Your task to perform on an android device: Go to display settings Image 0: 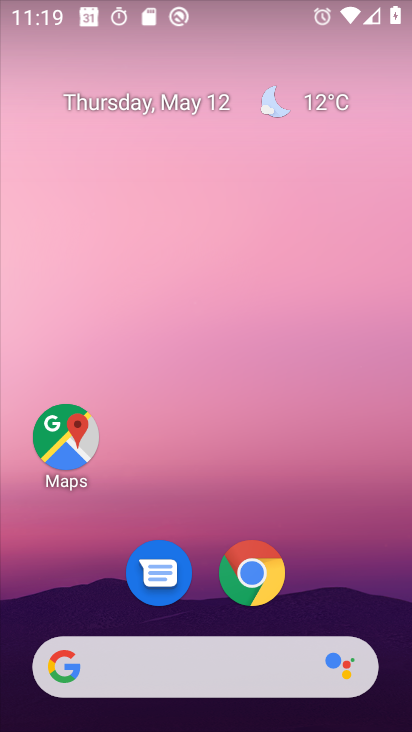
Step 0: click (334, 214)
Your task to perform on an android device: Go to display settings Image 1: 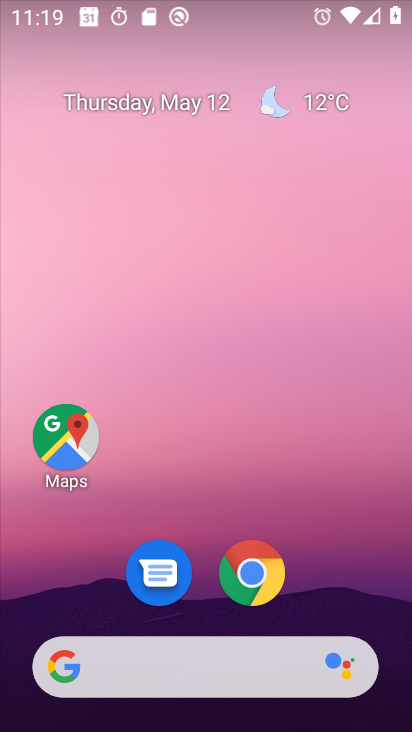
Step 1: drag from (401, 672) to (396, 227)
Your task to perform on an android device: Go to display settings Image 2: 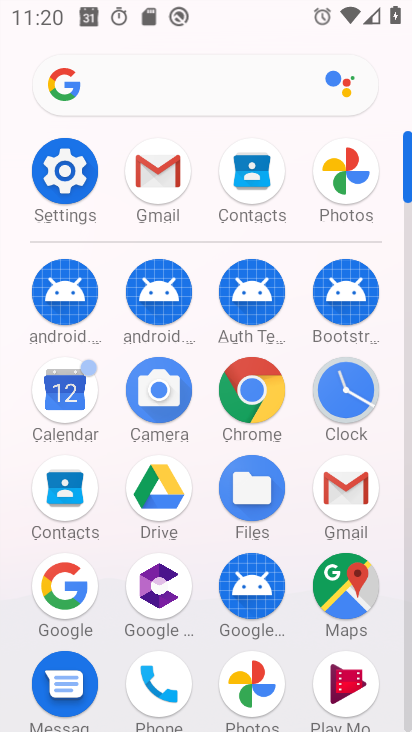
Step 2: click (52, 162)
Your task to perform on an android device: Go to display settings Image 3: 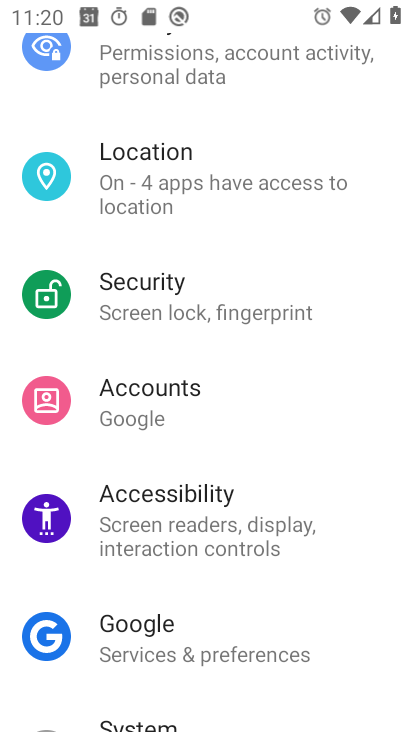
Step 3: drag from (312, 133) to (328, 428)
Your task to perform on an android device: Go to display settings Image 4: 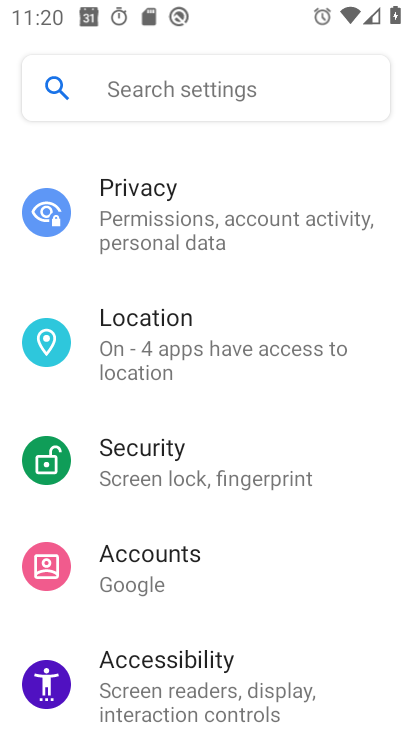
Step 4: drag from (246, 215) to (271, 555)
Your task to perform on an android device: Go to display settings Image 5: 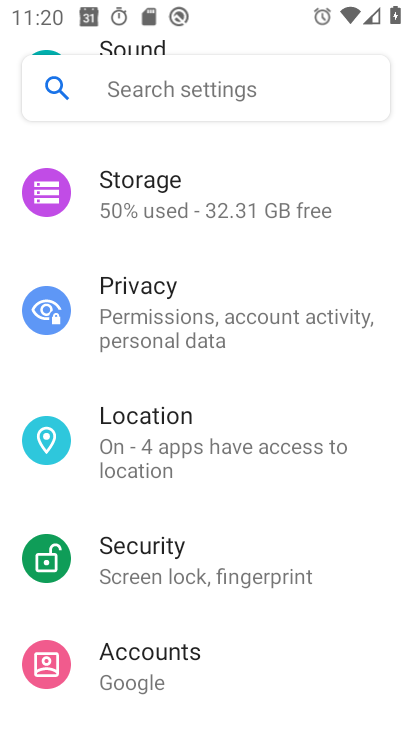
Step 5: drag from (293, 290) to (309, 501)
Your task to perform on an android device: Go to display settings Image 6: 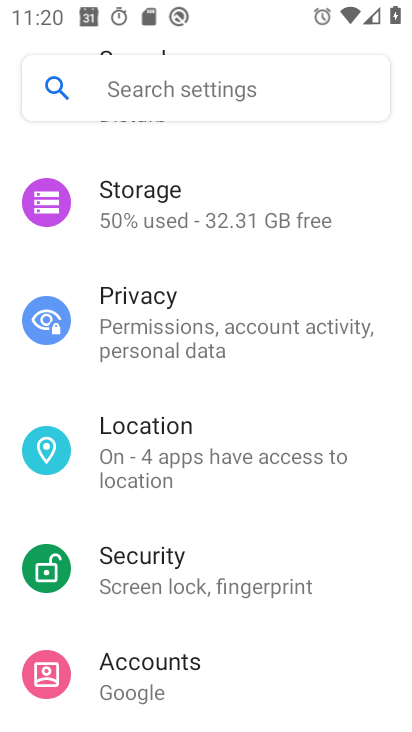
Step 6: drag from (307, 309) to (316, 607)
Your task to perform on an android device: Go to display settings Image 7: 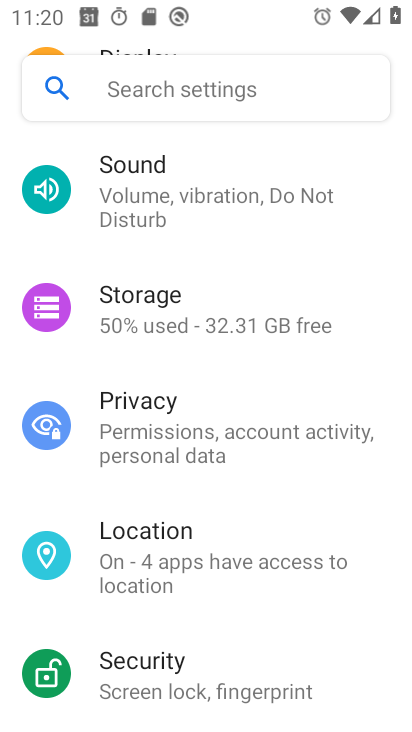
Step 7: drag from (307, 324) to (336, 534)
Your task to perform on an android device: Go to display settings Image 8: 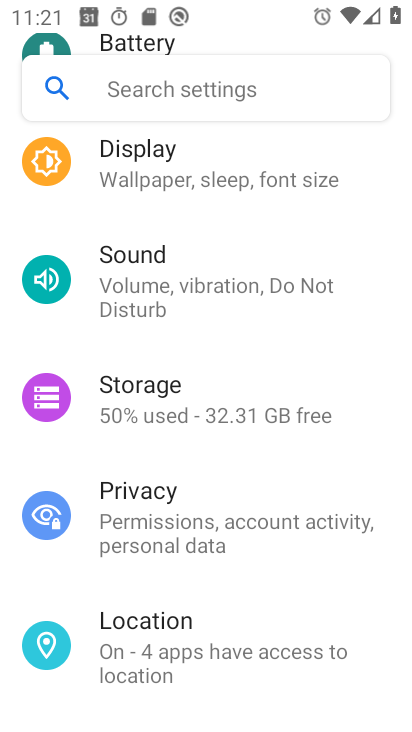
Step 8: click (187, 182)
Your task to perform on an android device: Go to display settings Image 9: 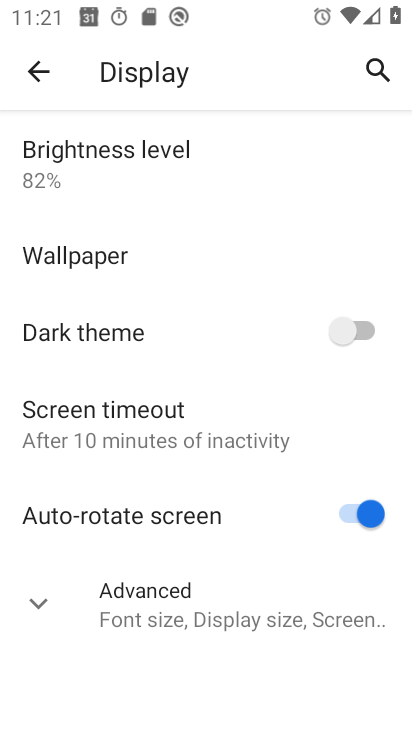
Step 9: task complete